Your task to perform on an android device: turn off location history Image 0: 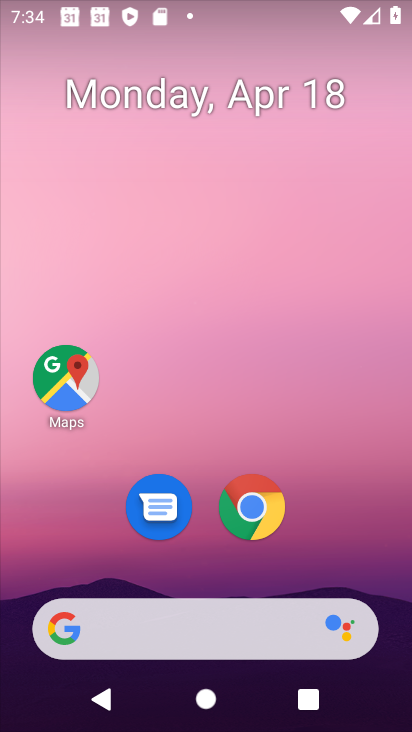
Step 0: drag from (40, 515) to (256, 45)
Your task to perform on an android device: turn off location history Image 1: 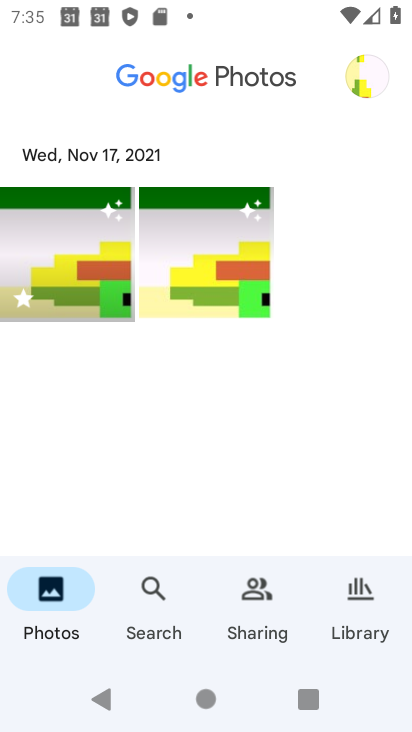
Step 1: press home button
Your task to perform on an android device: turn off location history Image 2: 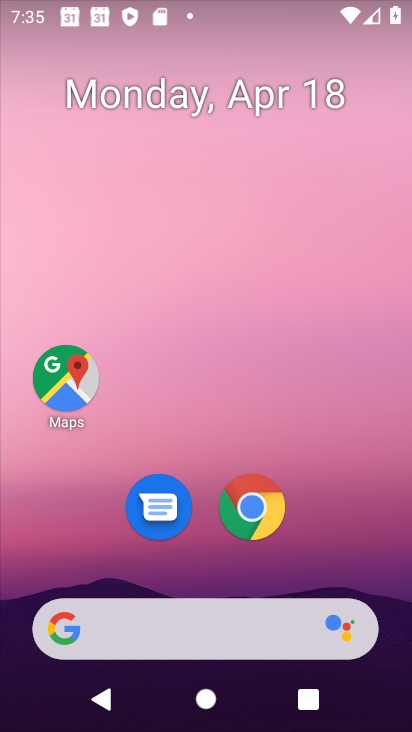
Step 2: drag from (3, 540) to (246, 35)
Your task to perform on an android device: turn off location history Image 3: 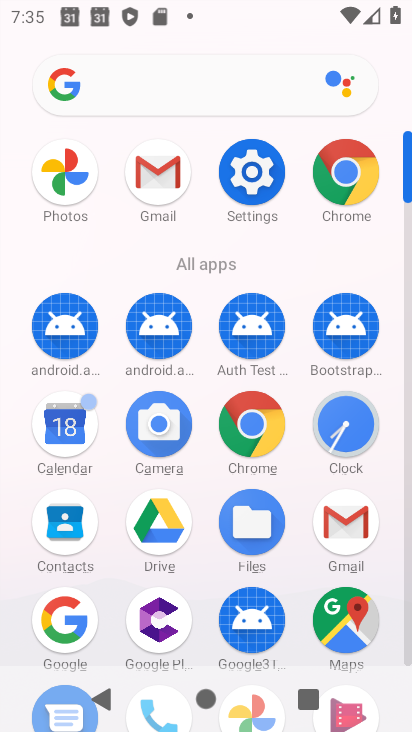
Step 3: click (236, 193)
Your task to perform on an android device: turn off location history Image 4: 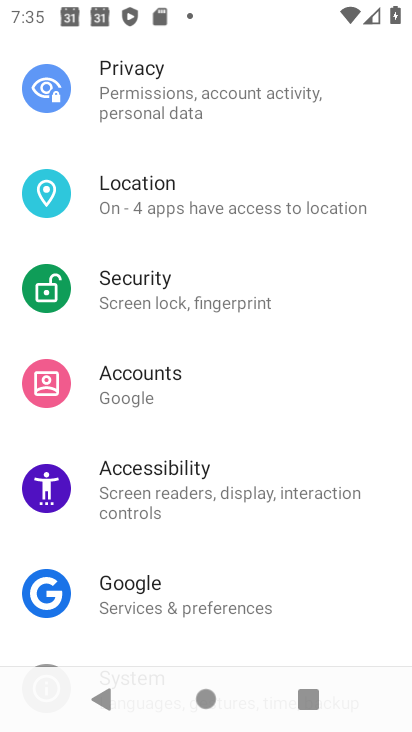
Step 4: click (217, 197)
Your task to perform on an android device: turn off location history Image 5: 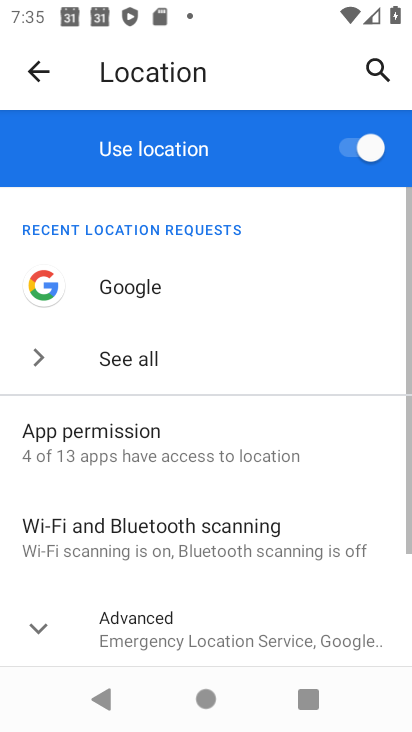
Step 5: drag from (6, 573) to (167, 175)
Your task to perform on an android device: turn off location history Image 6: 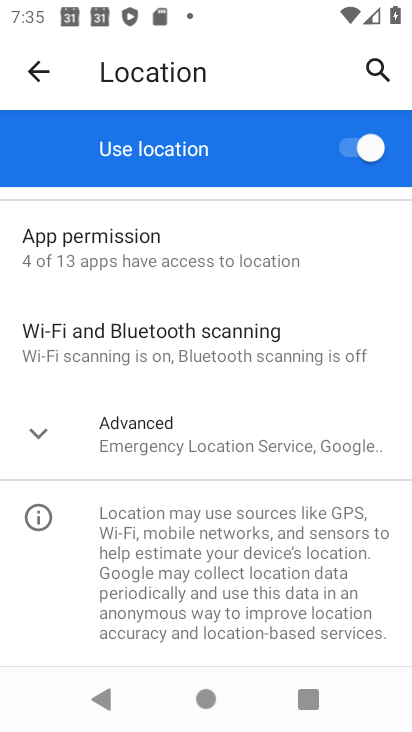
Step 6: click (32, 423)
Your task to perform on an android device: turn off location history Image 7: 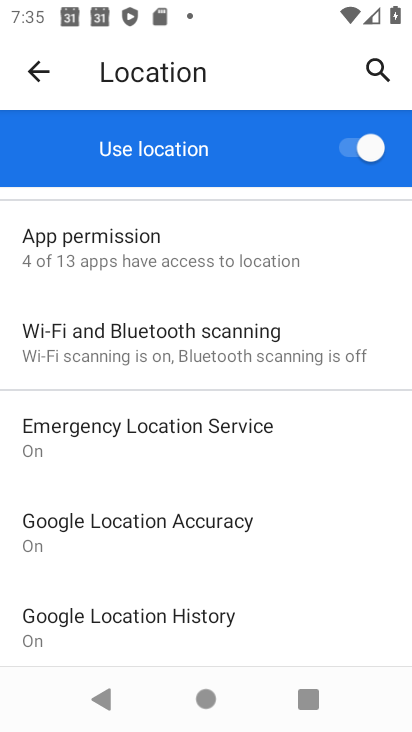
Step 7: click (183, 642)
Your task to perform on an android device: turn off location history Image 8: 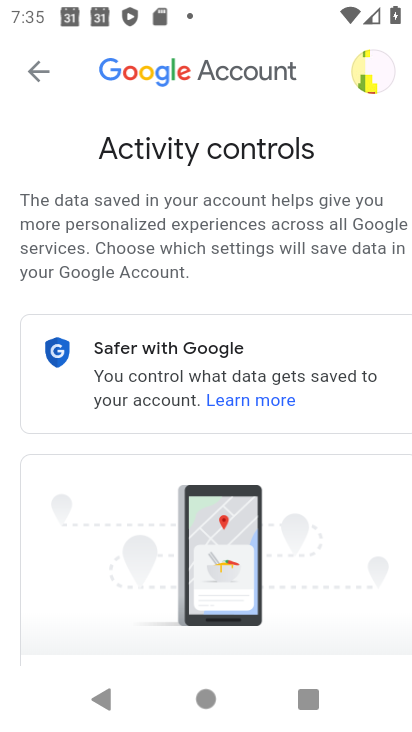
Step 8: drag from (337, 595) to (216, 55)
Your task to perform on an android device: turn off location history Image 9: 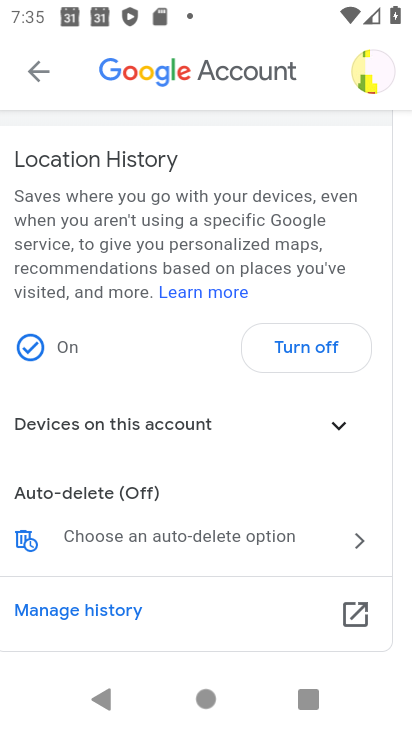
Step 9: click (325, 336)
Your task to perform on an android device: turn off location history Image 10: 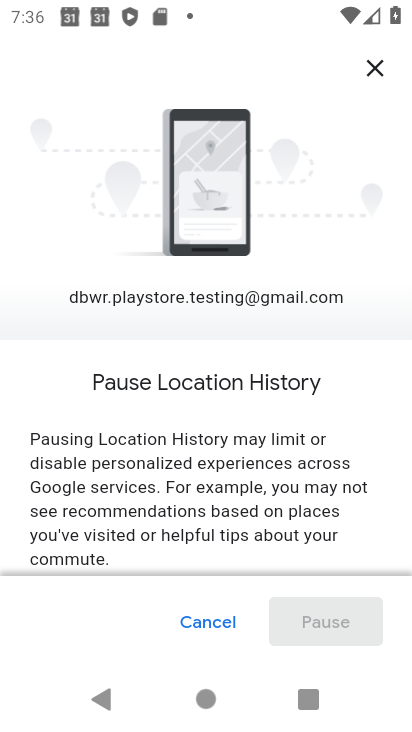
Step 10: click (187, 630)
Your task to perform on an android device: turn off location history Image 11: 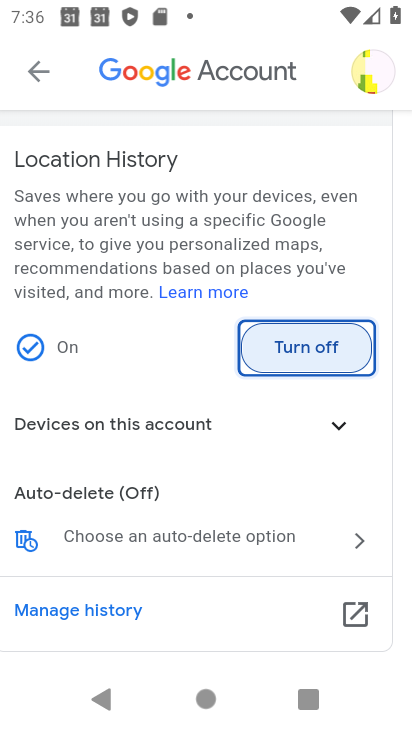
Step 11: task complete